Your task to perform on an android device: turn off location Image 0: 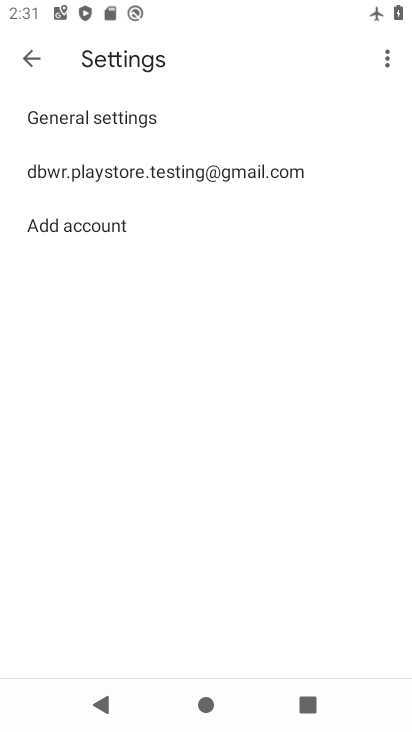
Step 0: press home button
Your task to perform on an android device: turn off location Image 1: 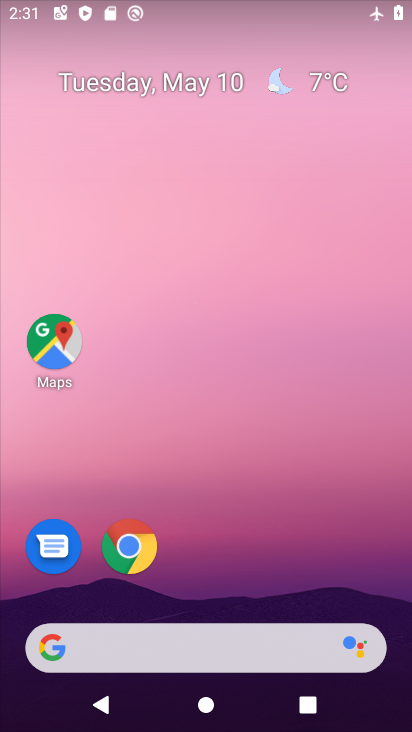
Step 1: drag from (304, 511) to (235, 0)
Your task to perform on an android device: turn off location Image 2: 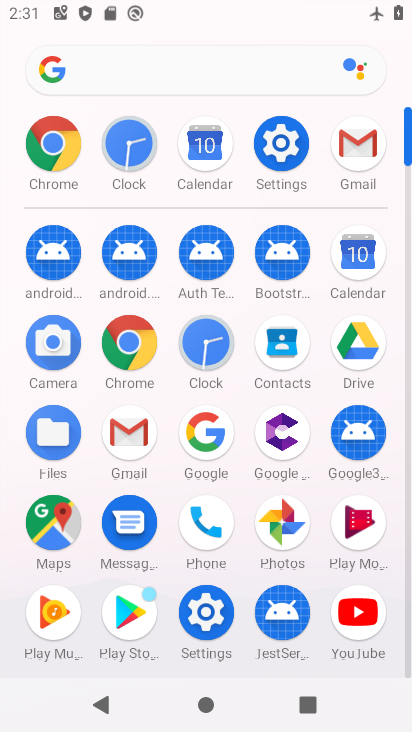
Step 2: click (279, 140)
Your task to perform on an android device: turn off location Image 3: 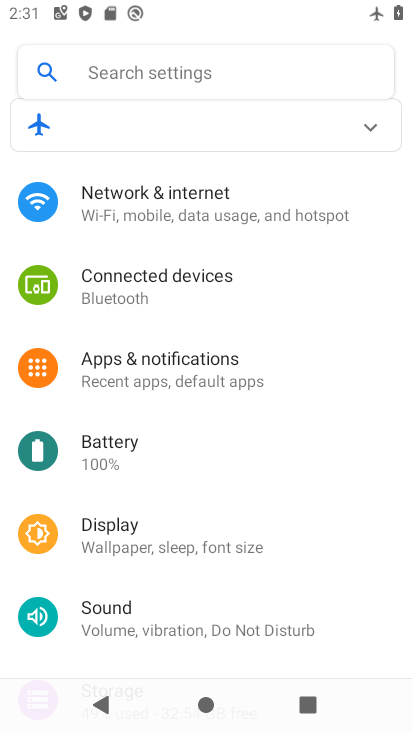
Step 3: drag from (227, 582) to (183, 311)
Your task to perform on an android device: turn off location Image 4: 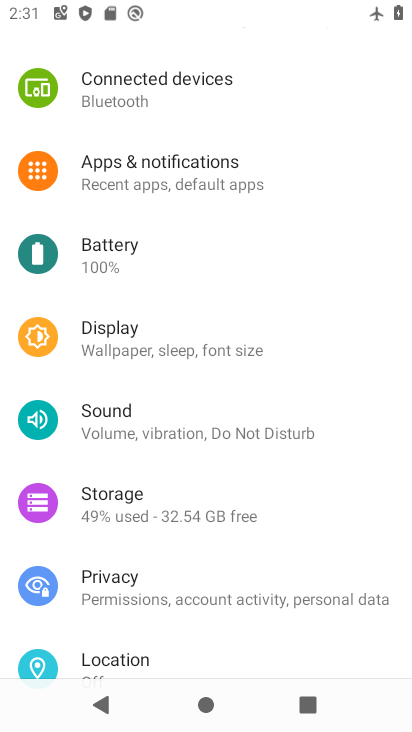
Step 4: drag from (167, 631) to (130, 300)
Your task to perform on an android device: turn off location Image 5: 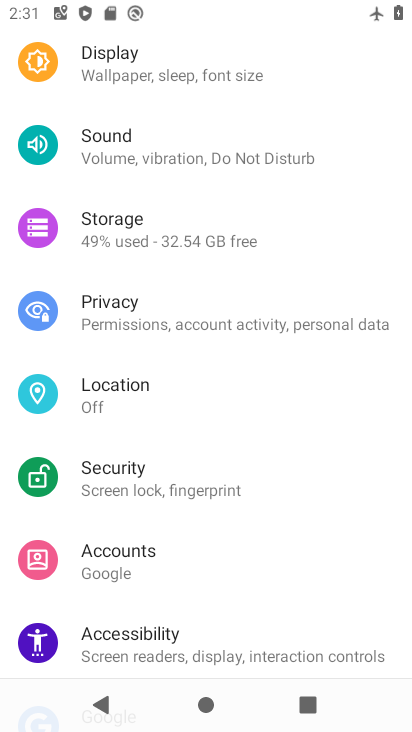
Step 5: click (124, 399)
Your task to perform on an android device: turn off location Image 6: 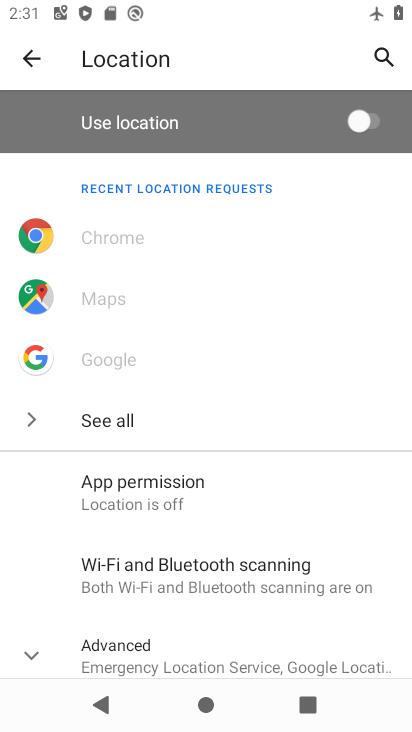
Step 6: task complete